Your task to perform on an android device: turn on data saver in the chrome app Image 0: 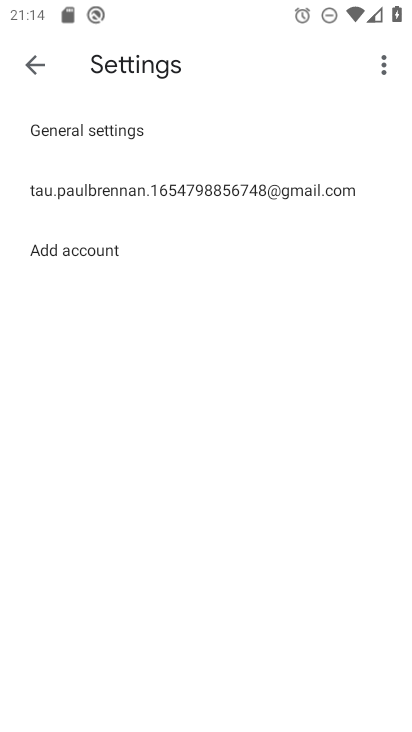
Step 0: press home button
Your task to perform on an android device: turn on data saver in the chrome app Image 1: 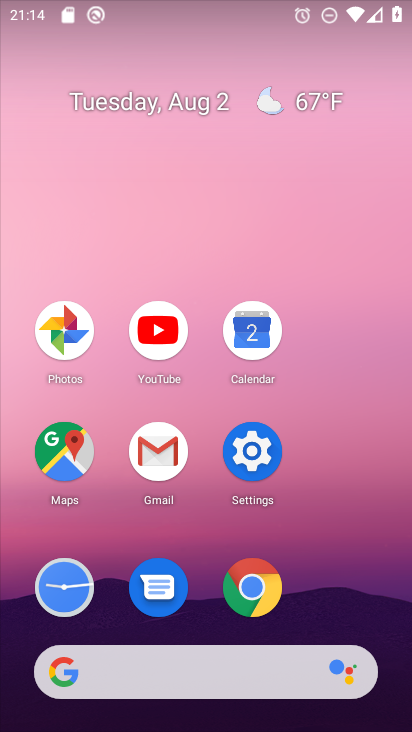
Step 1: click (254, 589)
Your task to perform on an android device: turn on data saver in the chrome app Image 2: 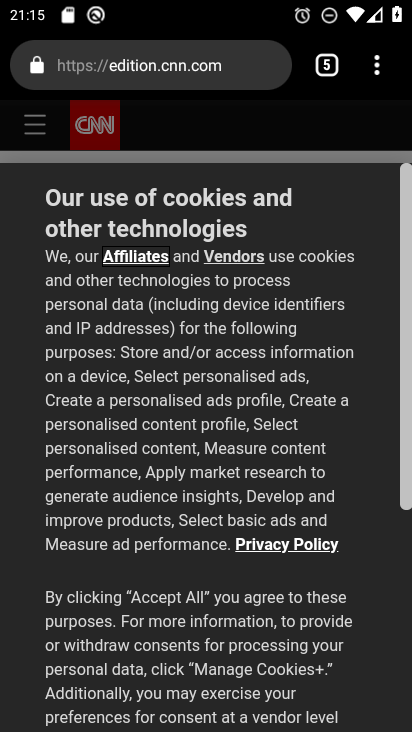
Step 2: click (379, 63)
Your task to perform on an android device: turn on data saver in the chrome app Image 3: 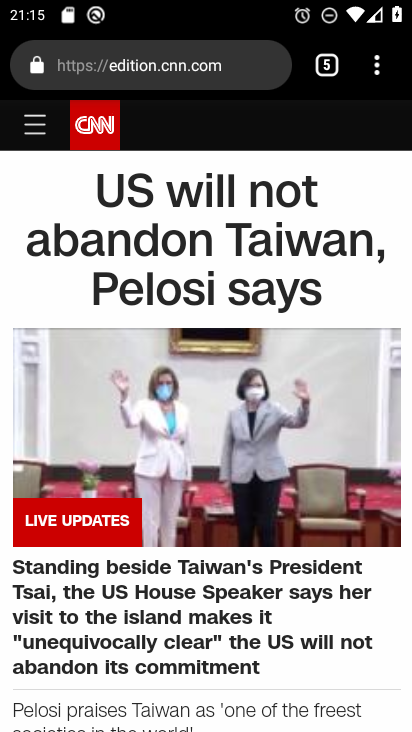
Step 3: click (384, 73)
Your task to perform on an android device: turn on data saver in the chrome app Image 4: 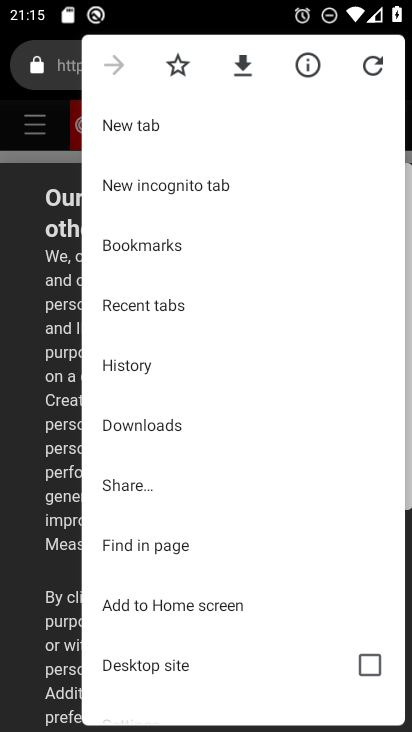
Step 4: drag from (264, 621) to (272, 212)
Your task to perform on an android device: turn on data saver in the chrome app Image 5: 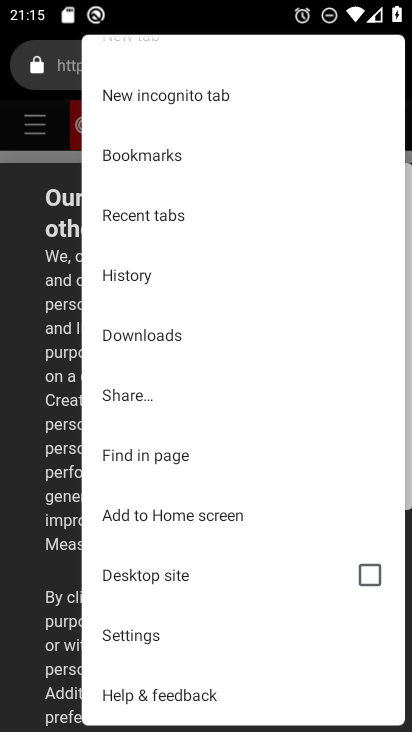
Step 5: click (144, 631)
Your task to perform on an android device: turn on data saver in the chrome app Image 6: 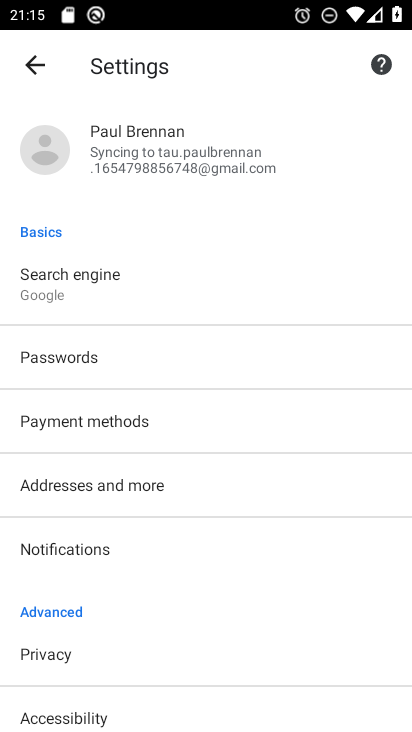
Step 6: drag from (242, 541) to (212, 136)
Your task to perform on an android device: turn on data saver in the chrome app Image 7: 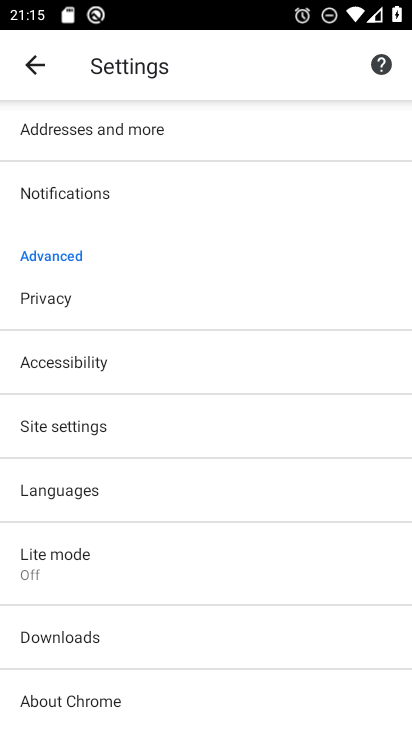
Step 7: click (75, 552)
Your task to perform on an android device: turn on data saver in the chrome app Image 8: 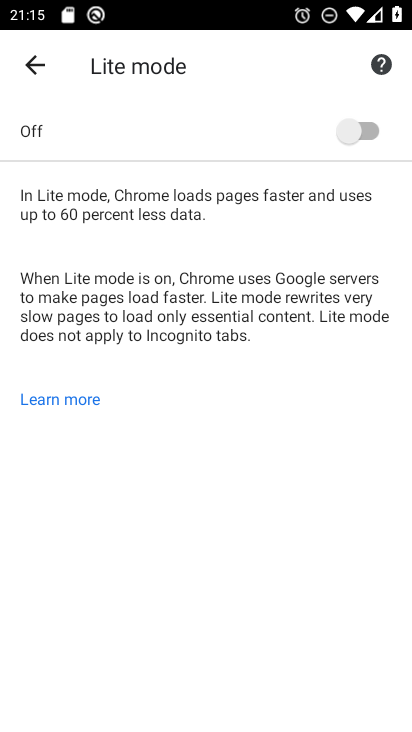
Step 8: click (352, 135)
Your task to perform on an android device: turn on data saver in the chrome app Image 9: 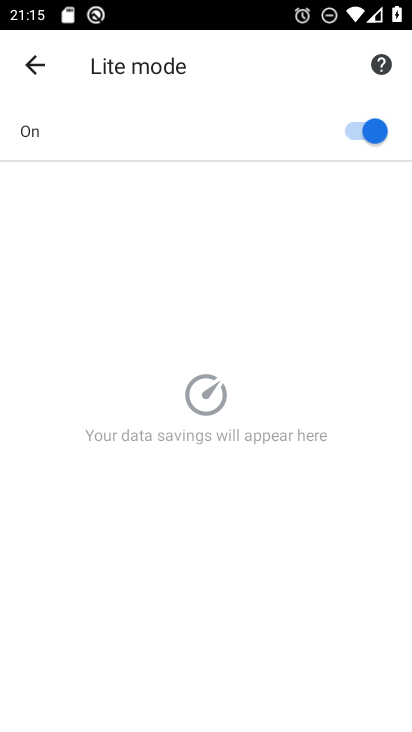
Step 9: task complete